Your task to perform on an android device: all mails in gmail Image 0: 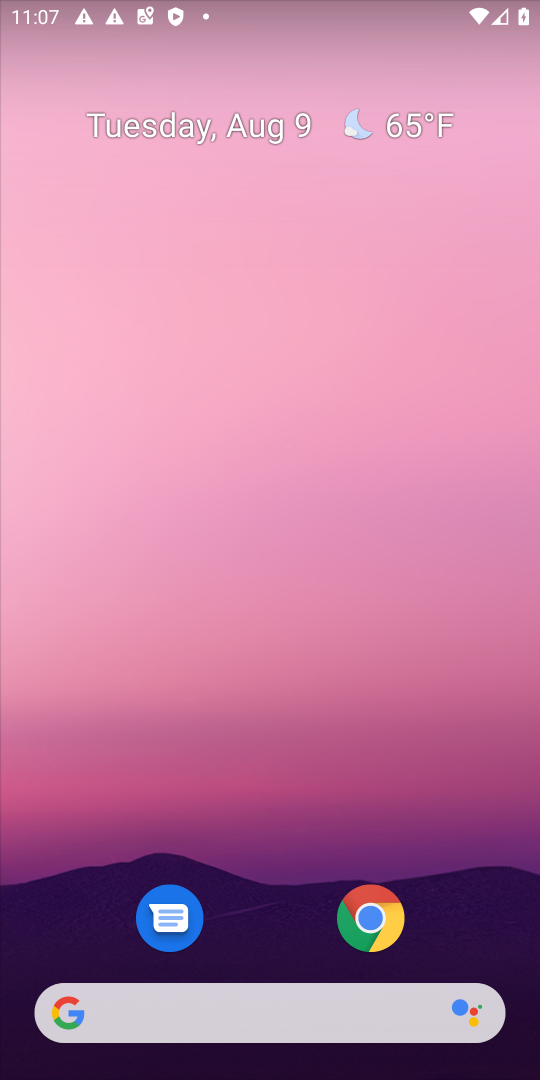
Step 0: drag from (276, 936) to (293, 168)
Your task to perform on an android device: all mails in gmail Image 1: 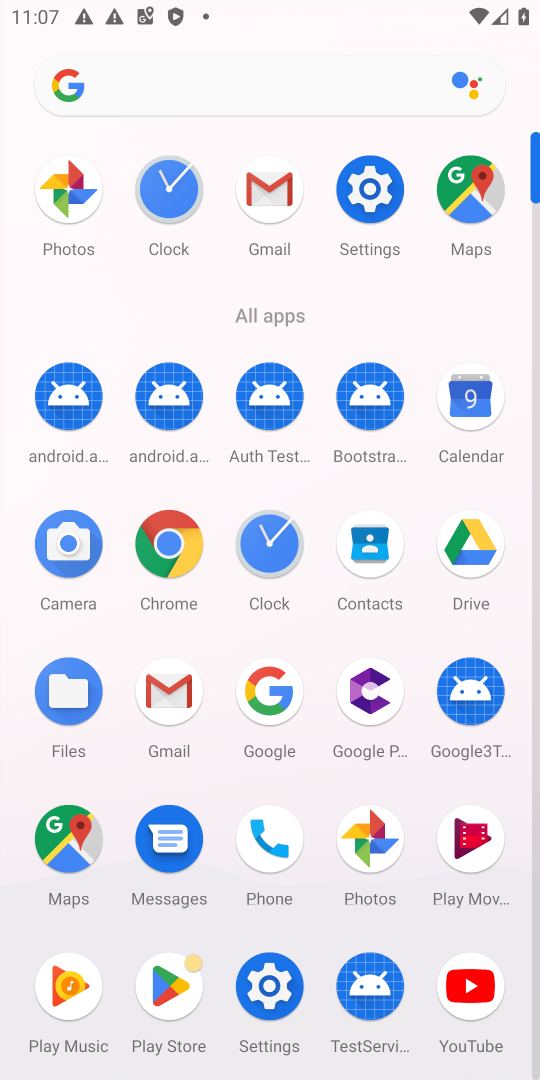
Step 1: click (163, 687)
Your task to perform on an android device: all mails in gmail Image 2: 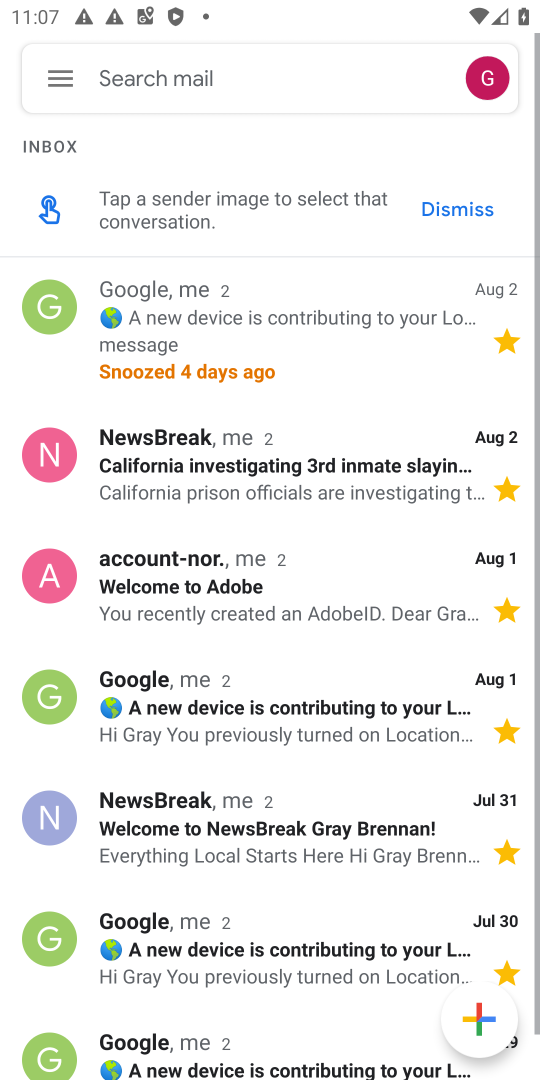
Step 2: click (65, 72)
Your task to perform on an android device: all mails in gmail Image 3: 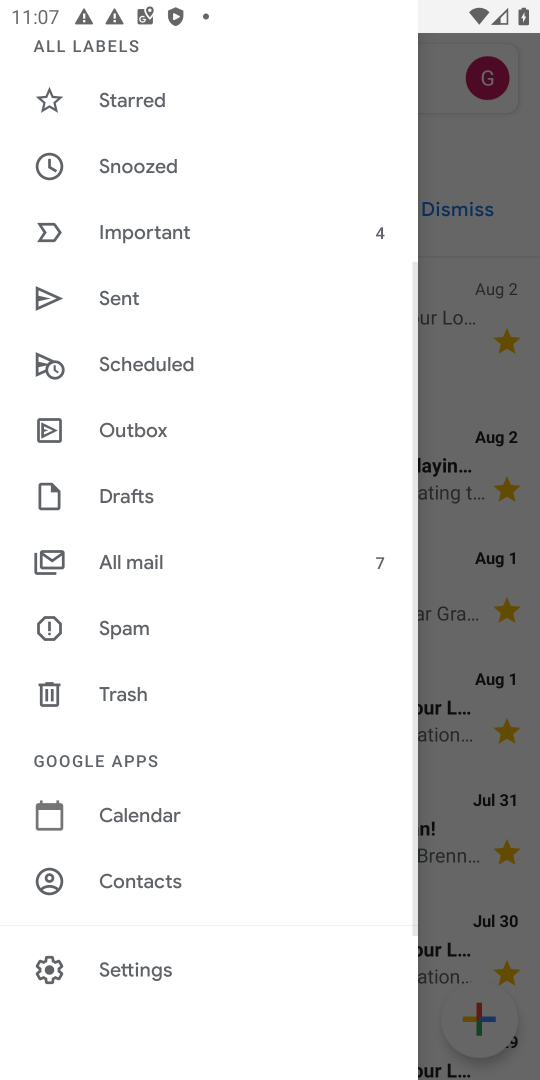
Step 3: click (135, 560)
Your task to perform on an android device: all mails in gmail Image 4: 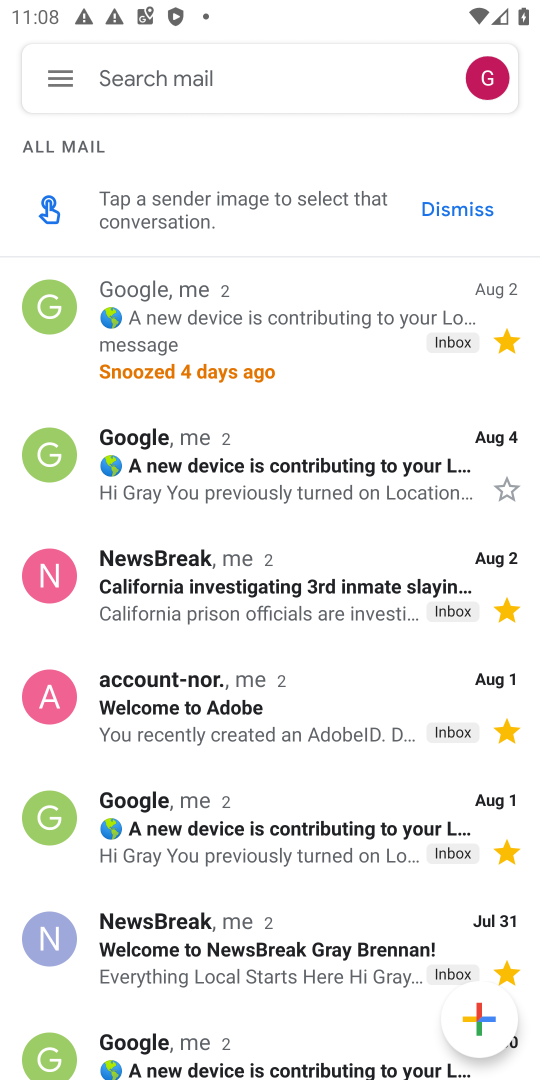
Step 4: task complete